Your task to perform on an android device: open wifi settings Image 0: 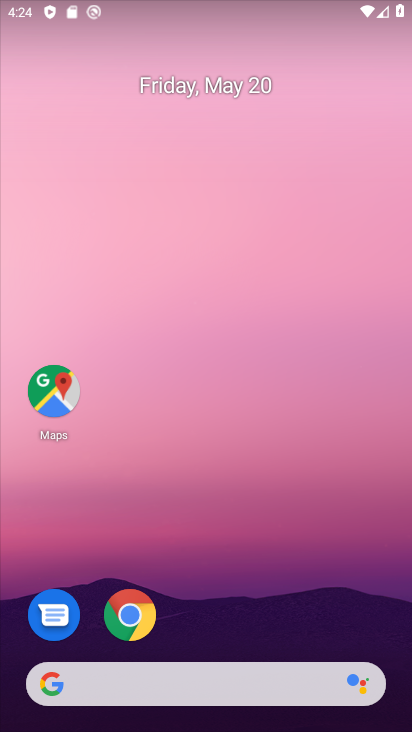
Step 0: drag from (244, 650) to (308, 97)
Your task to perform on an android device: open wifi settings Image 1: 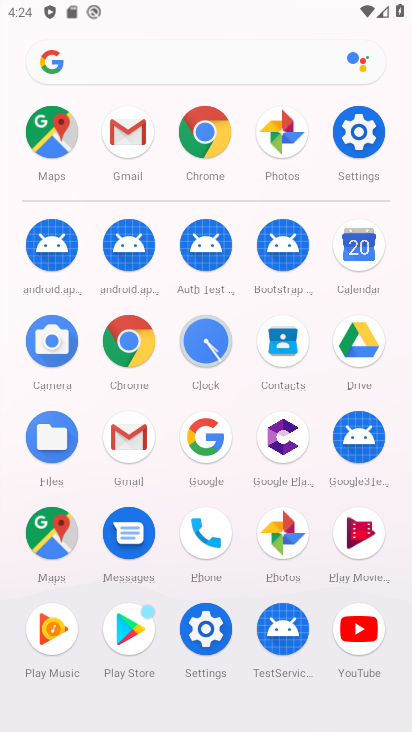
Step 1: click (360, 169)
Your task to perform on an android device: open wifi settings Image 2: 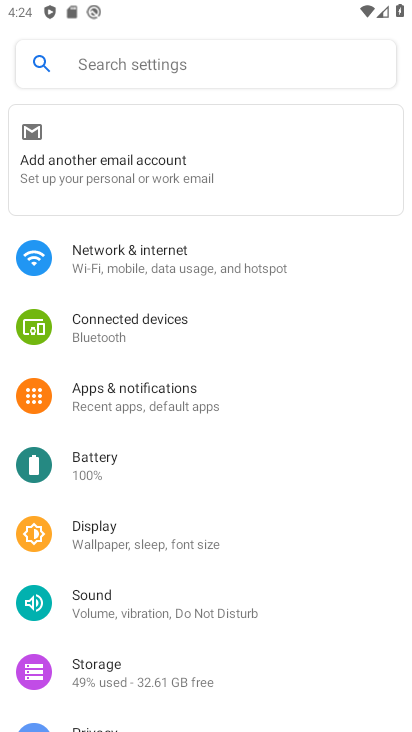
Step 2: click (184, 275)
Your task to perform on an android device: open wifi settings Image 3: 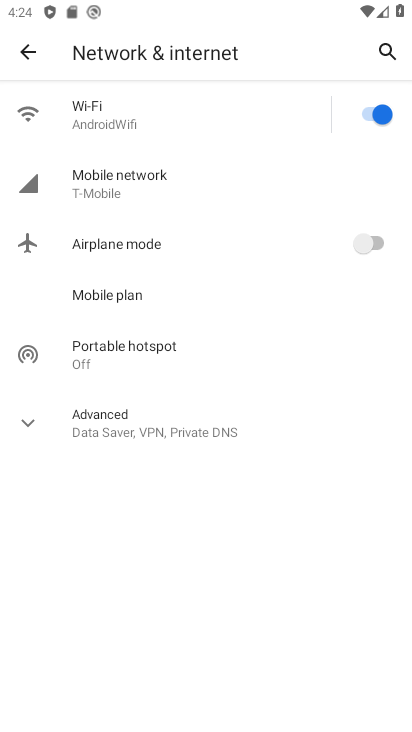
Step 3: click (170, 136)
Your task to perform on an android device: open wifi settings Image 4: 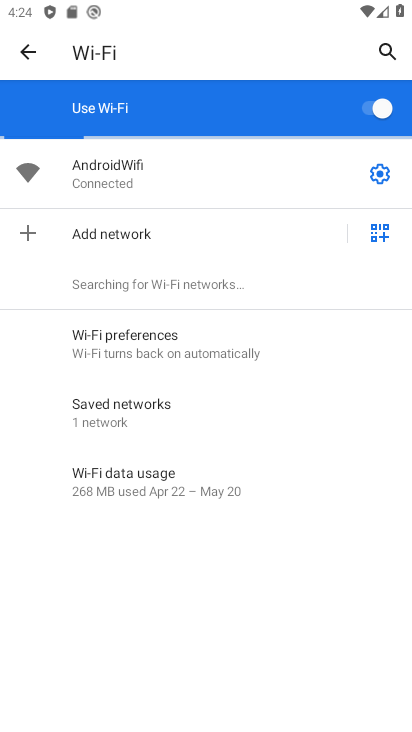
Step 4: task complete